Your task to perform on an android device: turn on notifications settings in the gmail app Image 0: 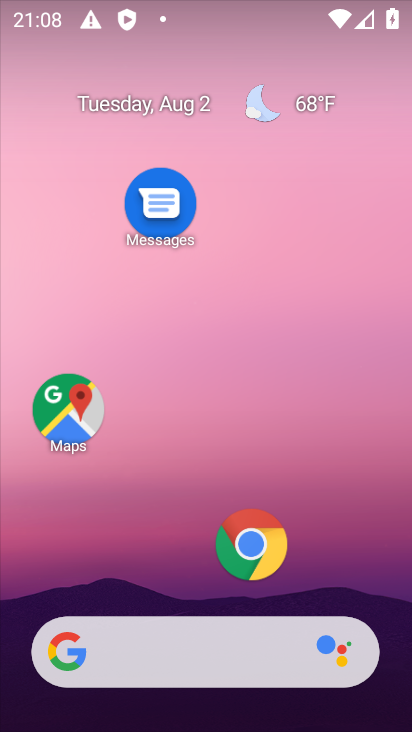
Step 0: drag from (205, 585) to (232, 191)
Your task to perform on an android device: turn on notifications settings in the gmail app Image 1: 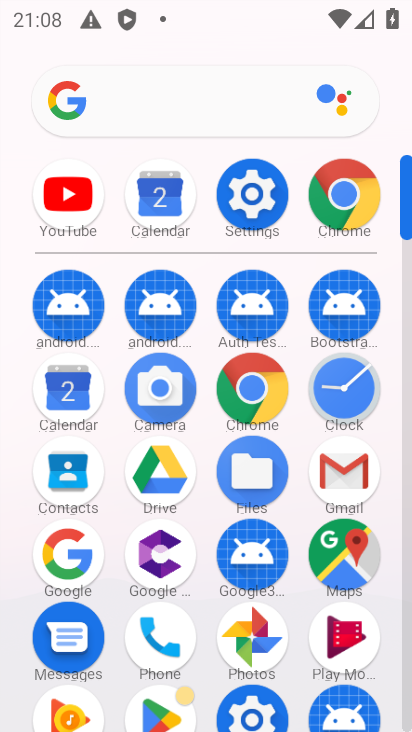
Step 1: click (327, 481)
Your task to perform on an android device: turn on notifications settings in the gmail app Image 2: 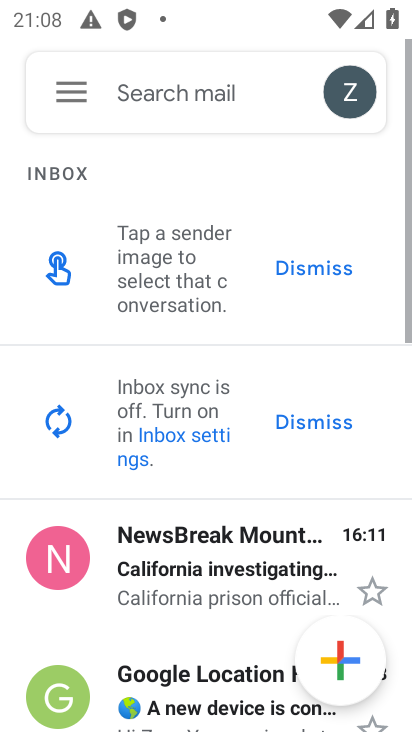
Step 2: click (80, 102)
Your task to perform on an android device: turn on notifications settings in the gmail app Image 3: 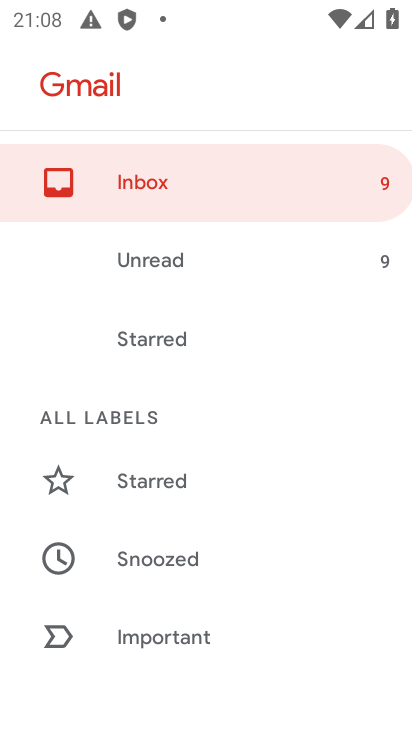
Step 3: drag from (197, 599) to (238, 193)
Your task to perform on an android device: turn on notifications settings in the gmail app Image 4: 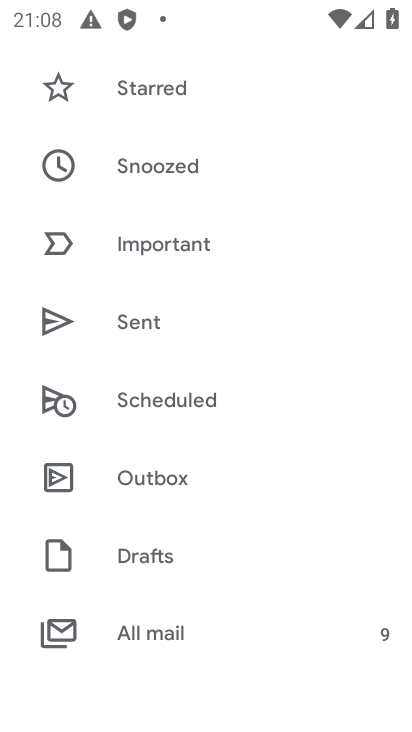
Step 4: drag from (170, 604) to (190, 223)
Your task to perform on an android device: turn on notifications settings in the gmail app Image 5: 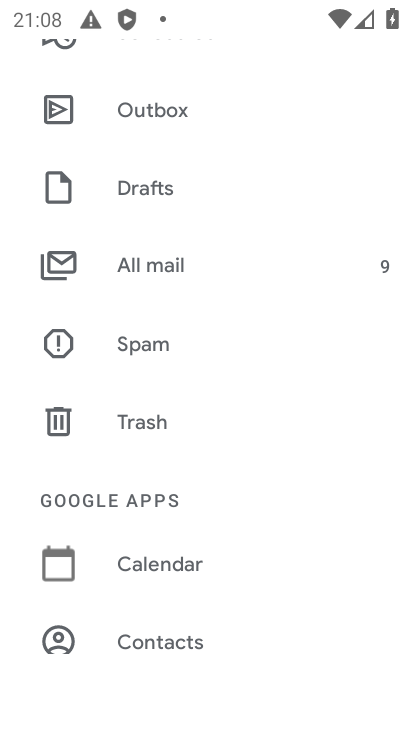
Step 5: drag from (138, 626) to (178, 270)
Your task to perform on an android device: turn on notifications settings in the gmail app Image 6: 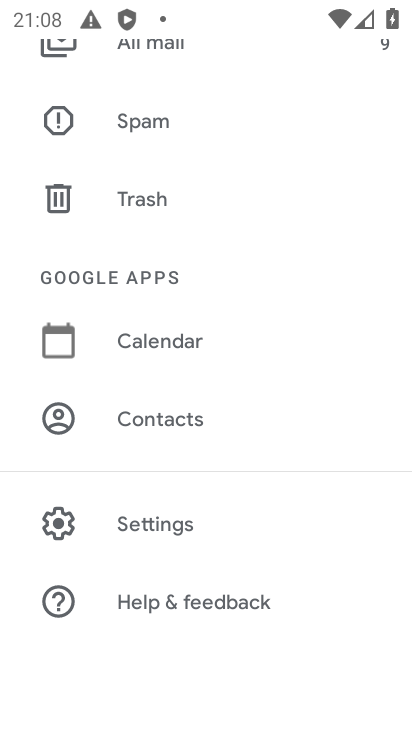
Step 6: click (158, 527)
Your task to perform on an android device: turn on notifications settings in the gmail app Image 7: 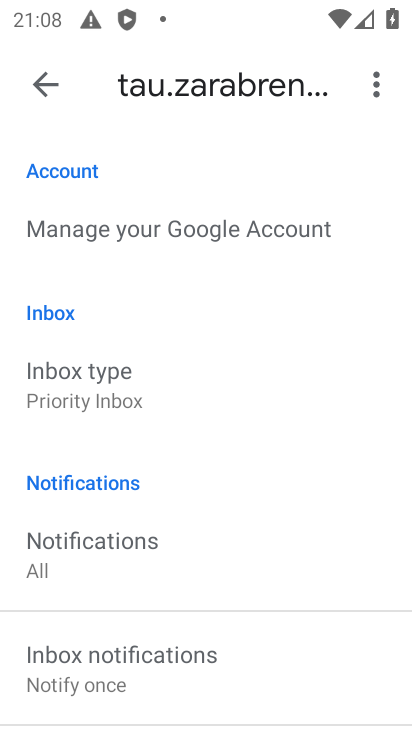
Step 7: drag from (168, 609) to (250, 160)
Your task to perform on an android device: turn on notifications settings in the gmail app Image 8: 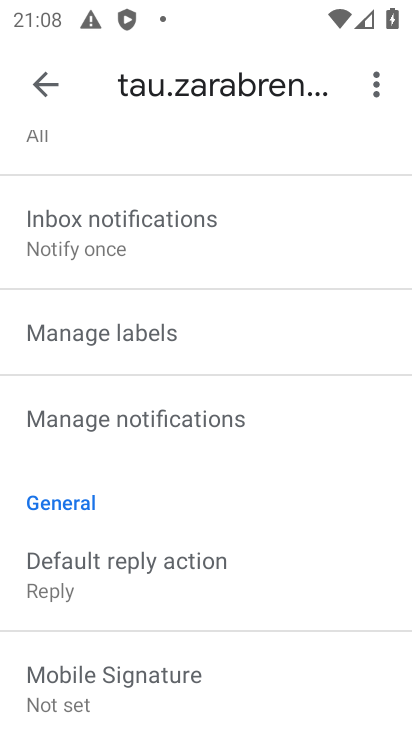
Step 8: click (142, 418)
Your task to perform on an android device: turn on notifications settings in the gmail app Image 9: 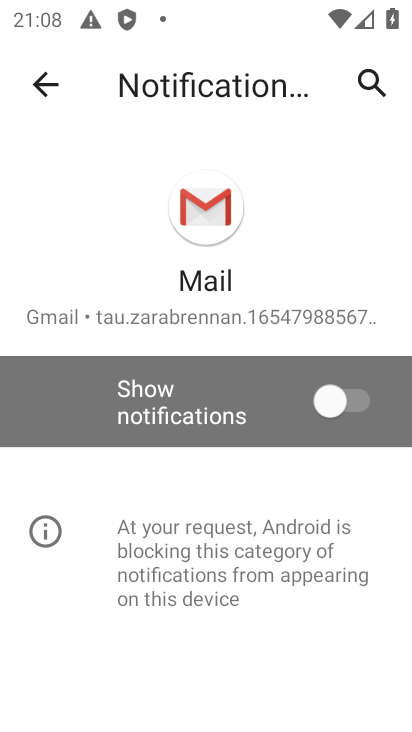
Step 9: click (338, 405)
Your task to perform on an android device: turn on notifications settings in the gmail app Image 10: 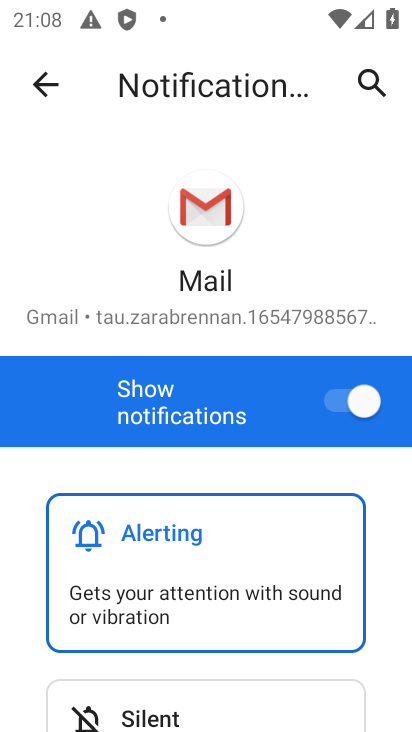
Step 10: task complete